Your task to perform on an android device: refresh tabs in the chrome app Image 0: 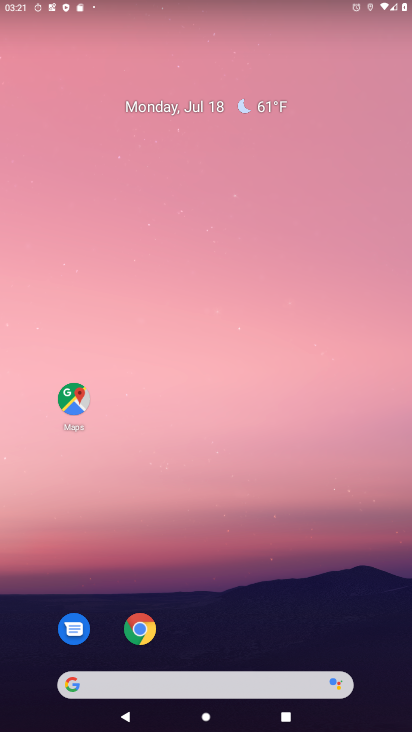
Step 0: click (143, 629)
Your task to perform on an android device: refresh tabs in the chrome app Image 1: 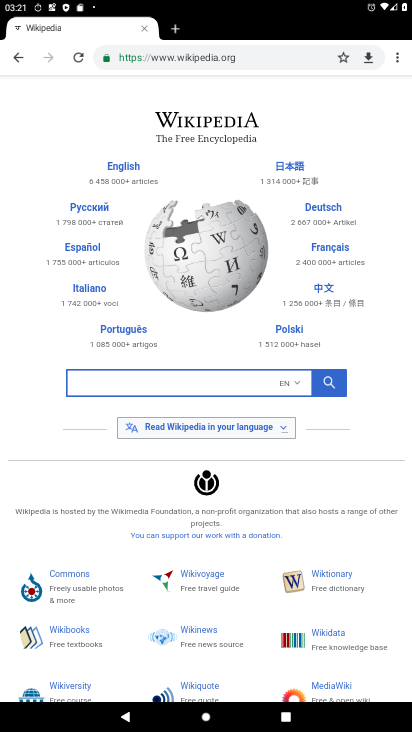
Step 1: click (77, 63)
Your task to perform on an android device: refresh tabs in the chrome app Image 2: 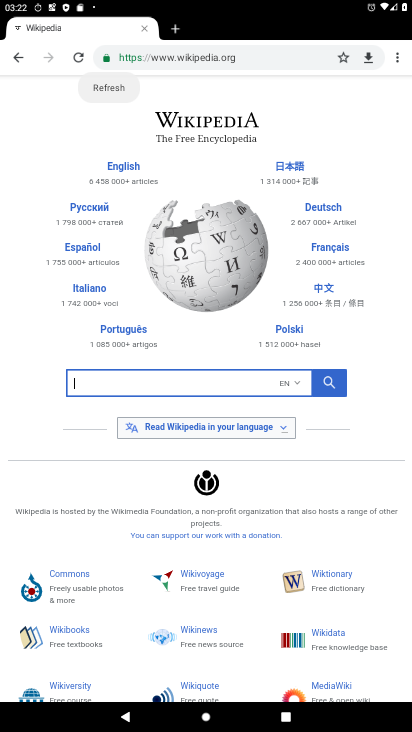
Step 2: click (77, 62)
Your task to perform on an android device: refresh tabs in the chrome app Image 3: 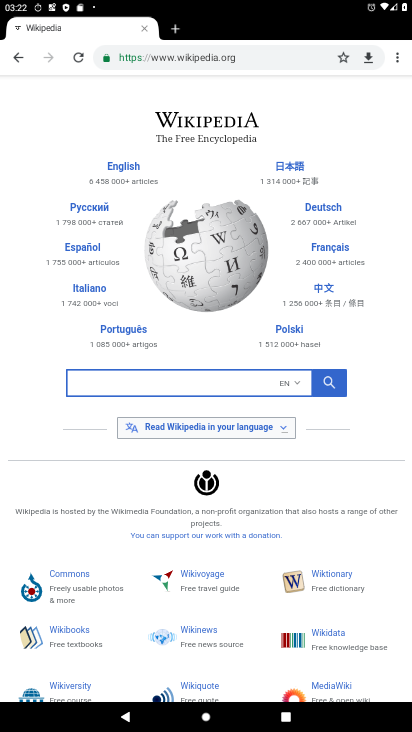
Step 3: task complete